Your task to perform on an android device: allow cookies in the chrome app Image 0: 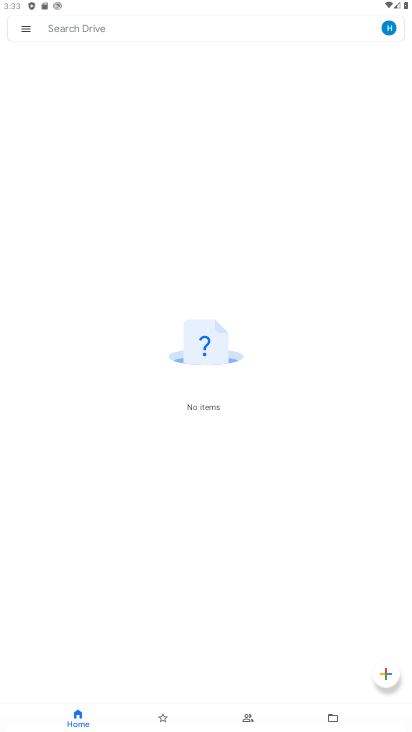
Step 0: press home button
Your task to perform on an android device: allow cookies in the chrome app Image 1: 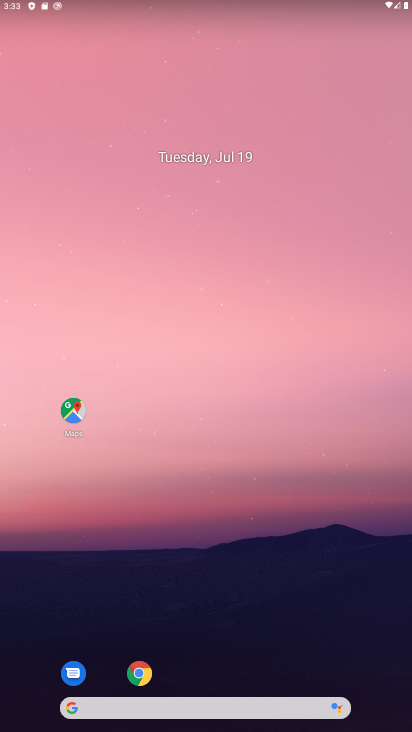
Step 1: click (135, 670)
Your task to perform on an android device: allow cookies in the chrome app Image 2: 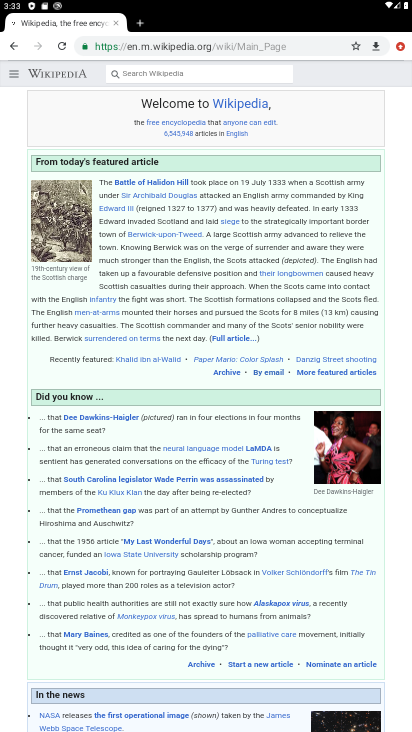
Step 2: click (400, 46)
Your task to perform on an android device: allow cookies in the chrome app Image 3: 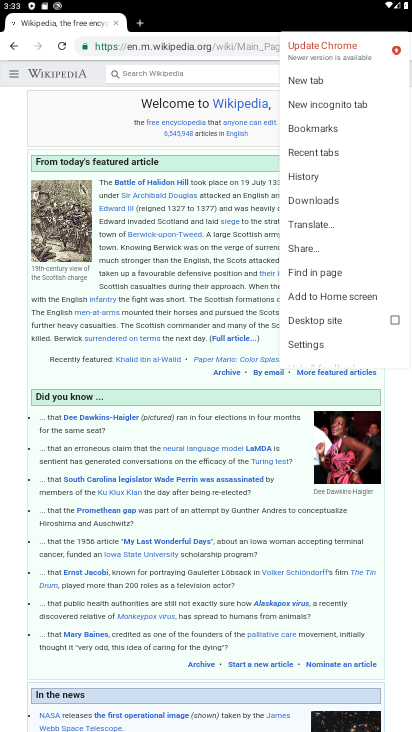
Step 3: click (316, 344)
Your task to perform on an android device: allow cookies in the chrome app Image 4: 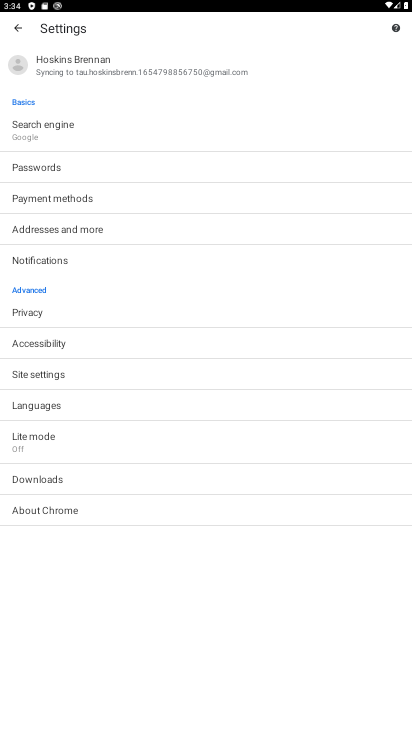
Step 4: click (67, 370)
Your task to perform on an android device: allow cookies in the chrome app Image 5: 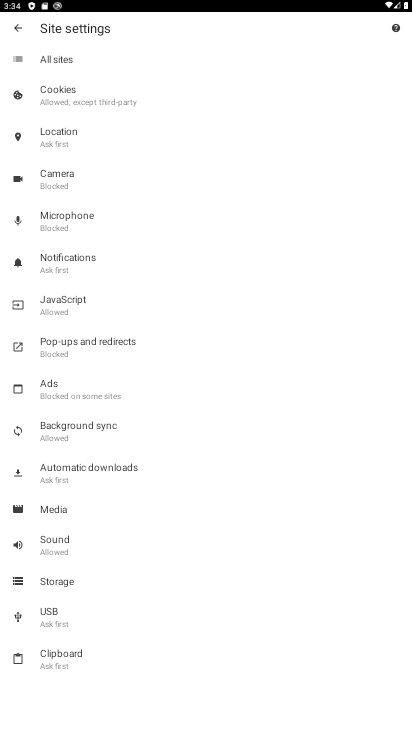
Step 5: click (89, 94)
Your task to perform on an android device: allow cookies in the chrome app Image 6: 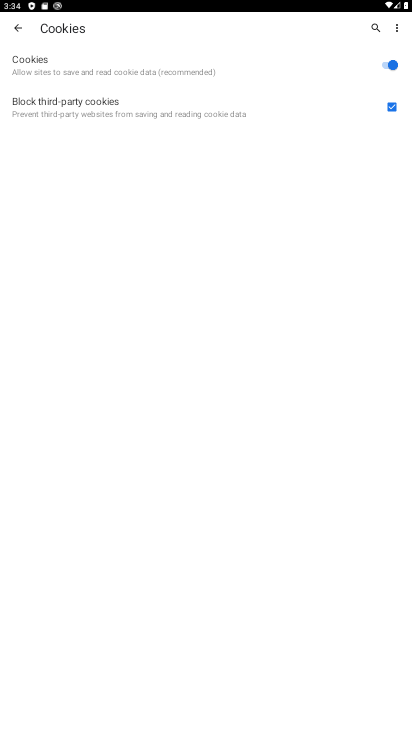
Step 6: click (390, 105)
Your task to perform on an android device: allow cookies in the chrome app Image 7: 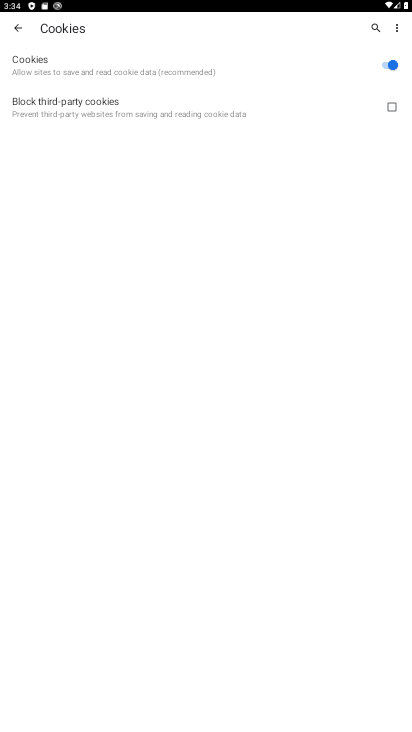
Step 7: task complete